Your task to perform on an android device: open the mobile data screen to see how much data has been used Image 0: 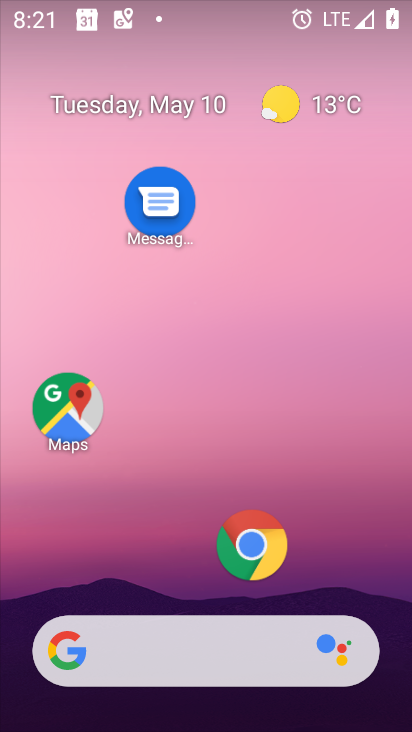
Step 0: drag from (201, 589) to (230, 84)
Your task to perform on an android device: open the mobile data screen to see how much data has been used Image 1: 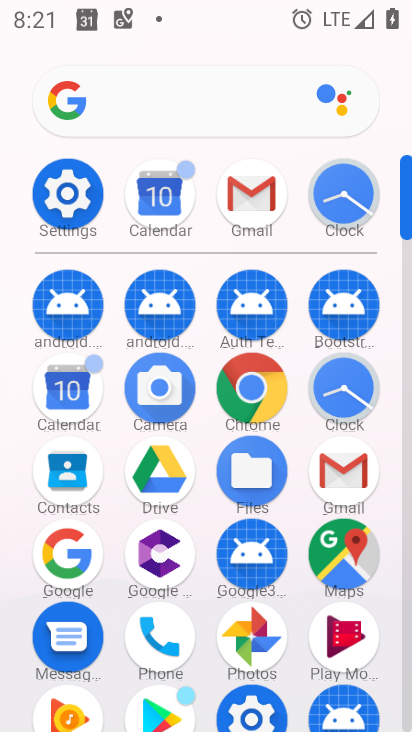
Step 1: click (65, 187)
Your task to perform on an android device: open the mobile data screen to see how much data has been used Image 2: 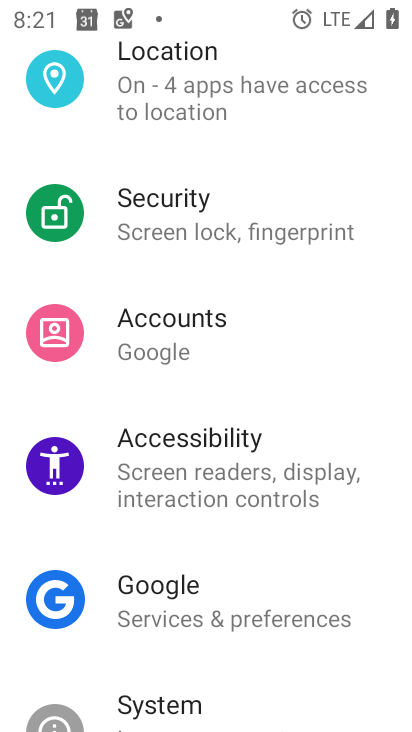
Step 2: drag from (167, 114) to (170, 712)
Your task to perform on an android device: open the mobile data screen to see how much data has been used Image 3: 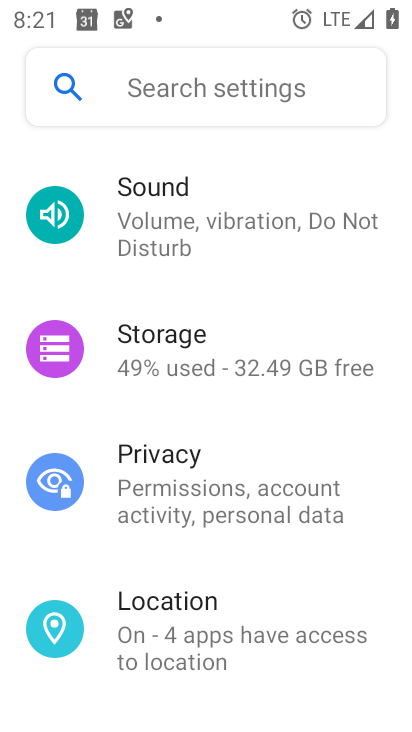
Step 3: drag from (184, 221) to (219, 696)
Your task to perform on an android device: open the mobile data screen to see how much data has been used Image 4: 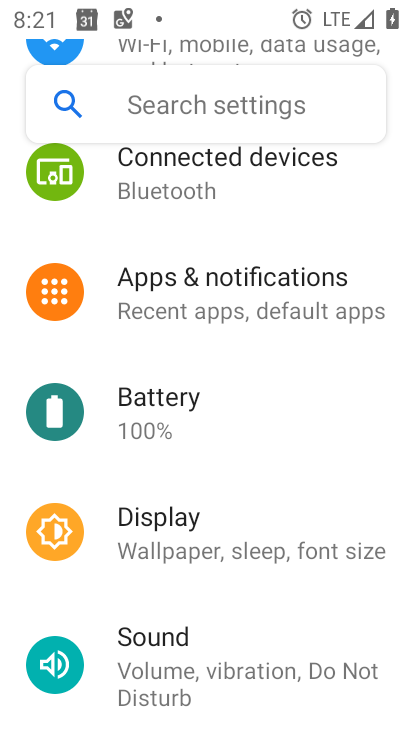
Step 4: drag from (192, 194) to (211, 704)
Your task to perform on an android device: open the mobile data screen to see how much data has been used Image 5: 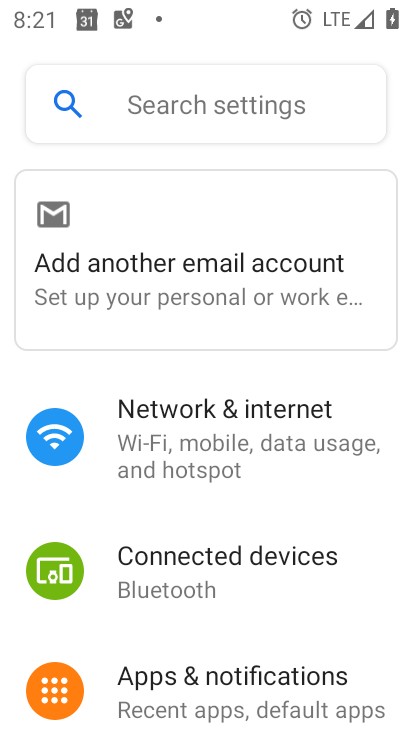
Step 5: click (198, 439)
Your task to perform on an android device: open the mobile data screen to see how much data has been used Image 6: 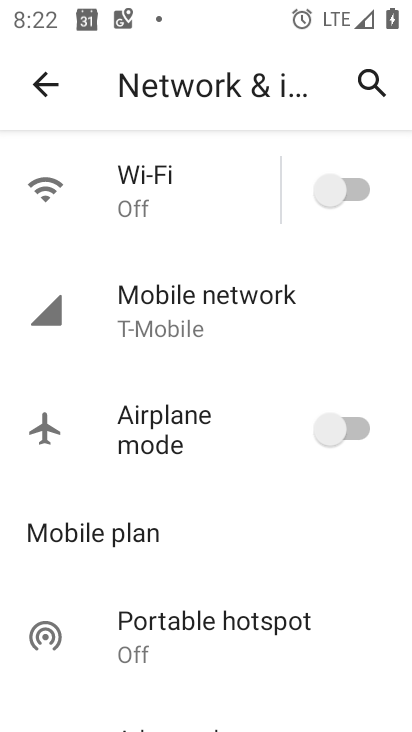
Step 6: click (225, 322)
Your task to perform on an android device: open the mobile data screen to see how much data has been used Image 7: 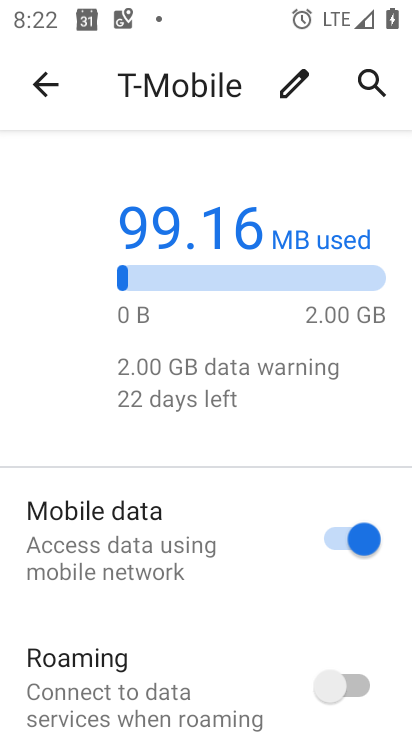
Step 7: drag from (234, 649) to (234, 229)
Your task to perform on an android device: open the mobile data screen to see how much data has been used Image 8: 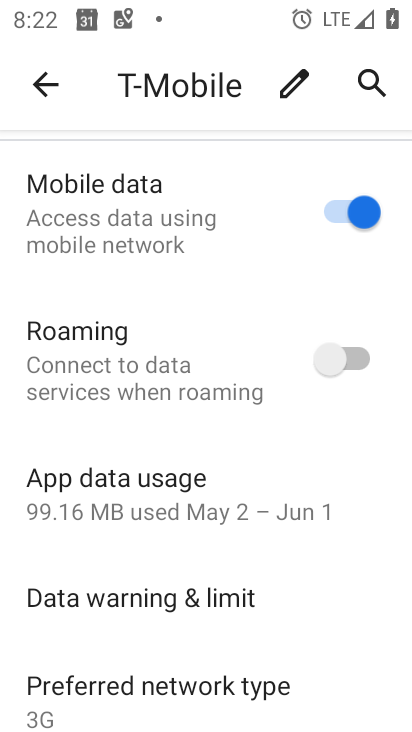
Step 8: click (165, 493)
Your task to perform on an android device: open the mobile data screen to see how much data has been used Image 9: 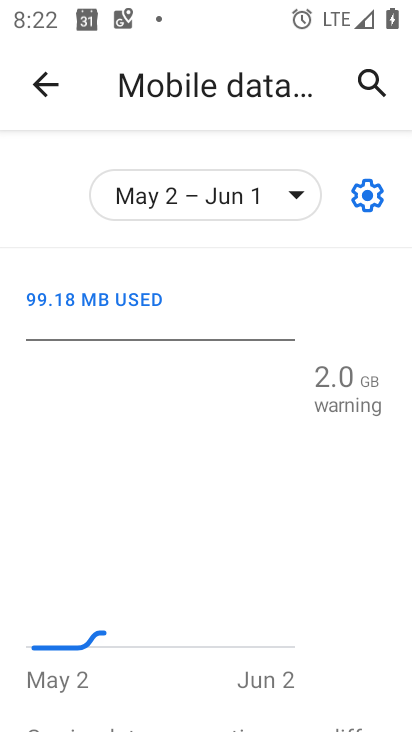
Step 9: task complete